Your task to perform on an android device: Open Google Maps Image 0: 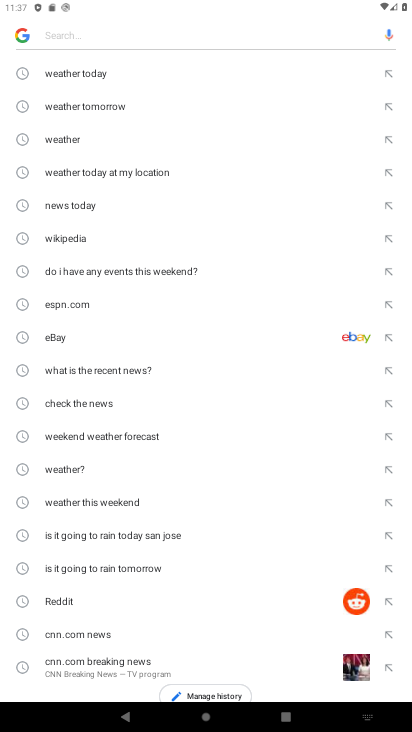
Step 0: press back button
Your task to perform on an android device: Open Google Maps Image 1: 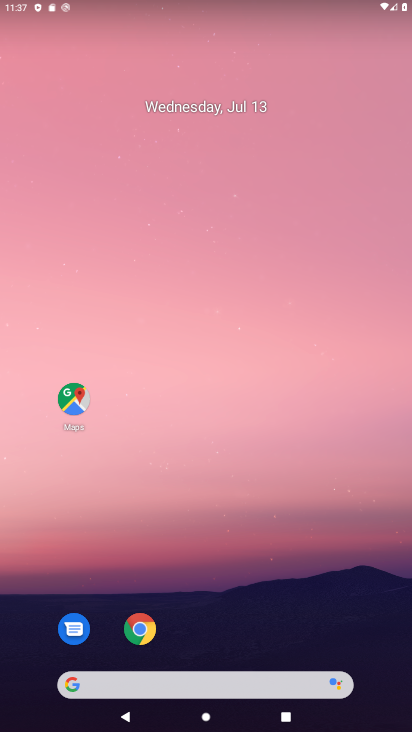
Step 1: drag from (261, 710) to (240, 238)
Your task to perform on an android device: Open Google Maps Image 2: 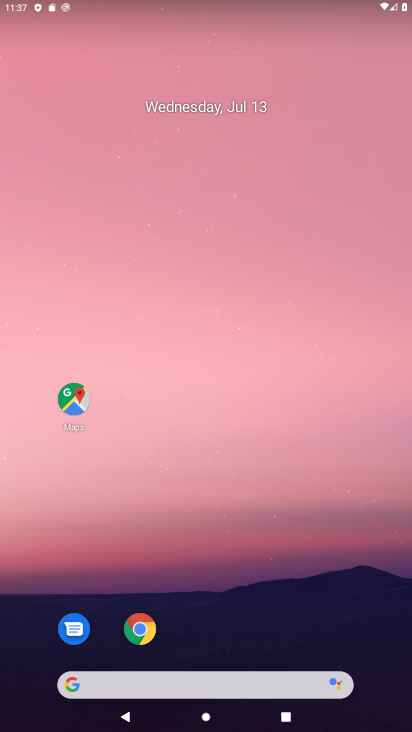
Step 2: drag from (244, 423) to (97, 61)
Your task to perform on an android device: Open Google Maps Image 3: 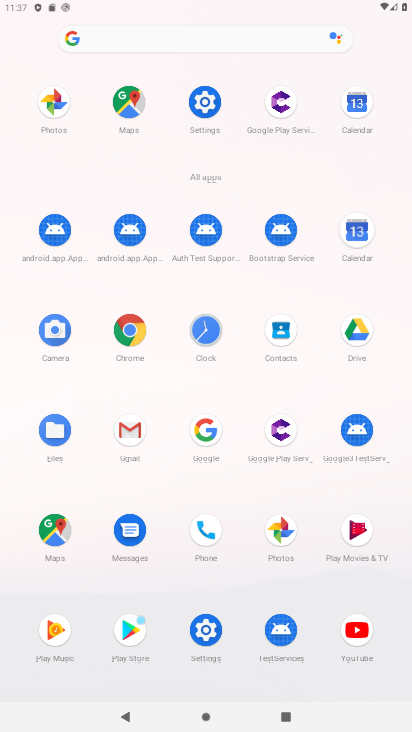
Step 3: click (48, 545)
Your task to perform on an android device: Open Google Maps Image 4: 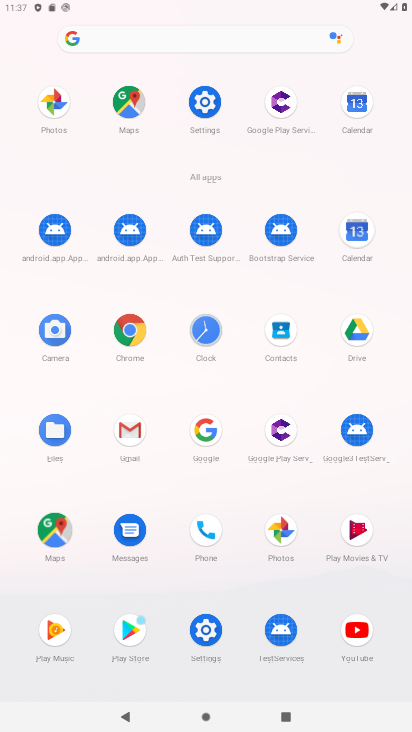
Step 4: click (48, 545)
Your task to perform on an android device: Open Google Maps Image 5: 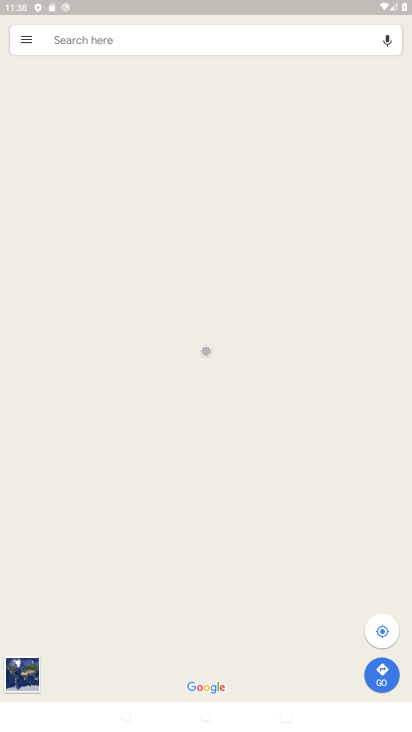
Step 5: task complete